Your task to perform on an android device: turn on the 24-hour format for clock Image 0: 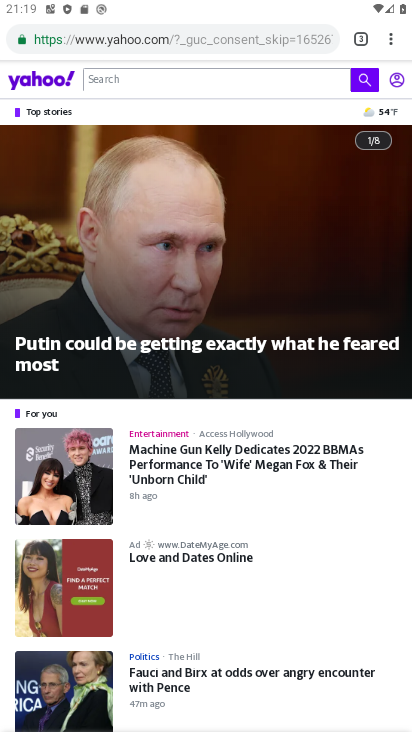
Step 0: drag from (389, 36) to (246, 437)
Your task to perform on an android device: turn on the 24-hour format for clock Image 1: 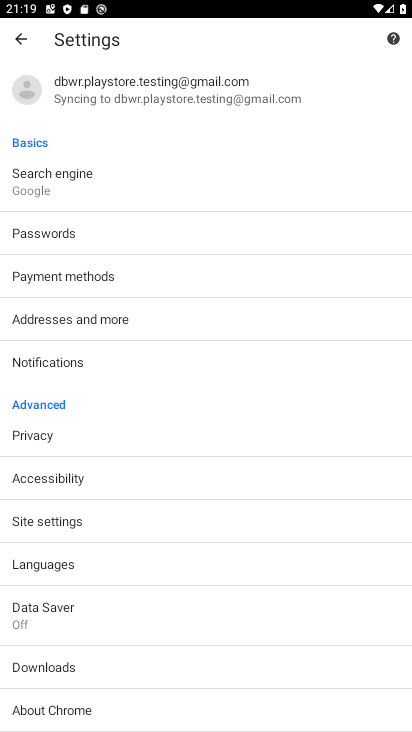
Step 1: press home button
Your task to perform on an android device: turn on the 24-hour format for clock Image 2: 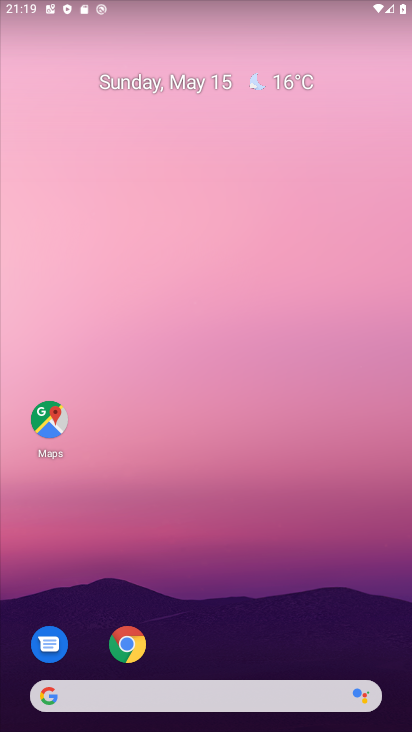
Step 2: drag from (191, 563) to (357, 17)
Your task to perform on an android device: turn on the 24-hour format for clock Image 3: 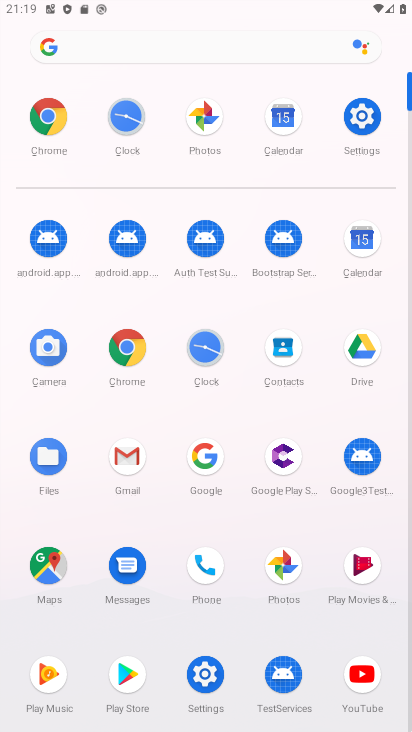
Step 3: click (211, 344)
Your task to perform on an android device: turn on the 24-hour format for clock Image 4: 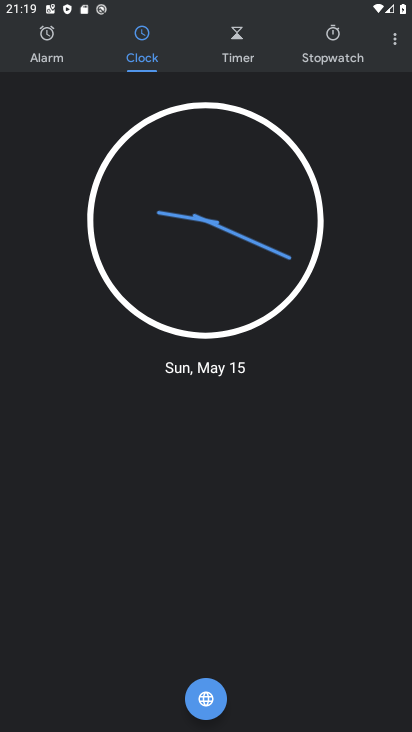
Step 4: click (392, 39)
Your task to perform on an android device: turn on the 24-hour format for clock Image 5: 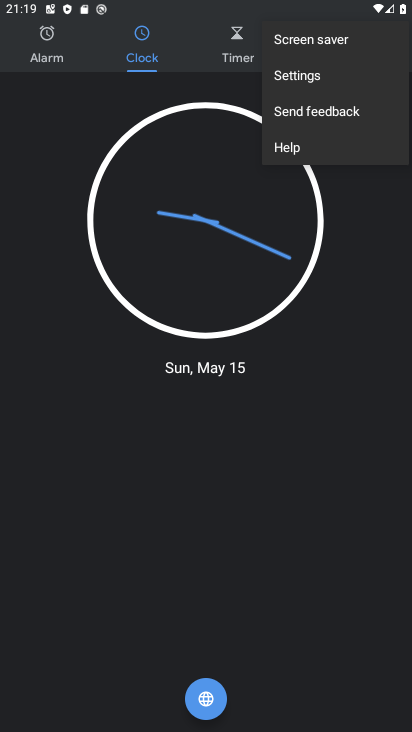
Step 5: click (296, 82)
Your task to perform on an android device: turn on the 24-hour format for clock Image 6: 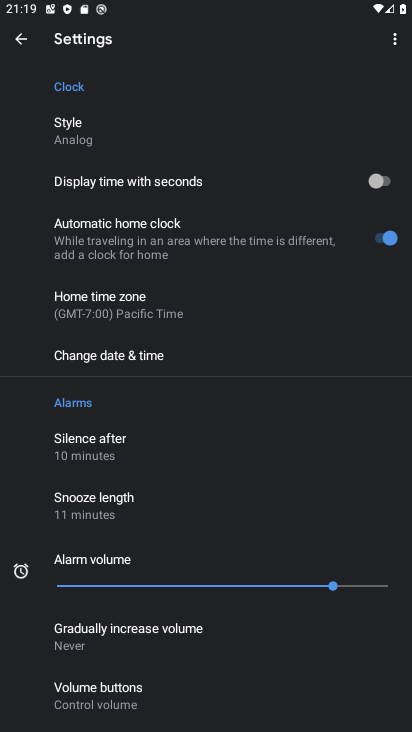
Step 6: click (100, 362)
Your task to perform on an android device: turn on the 24-hour format for clock Image 7: 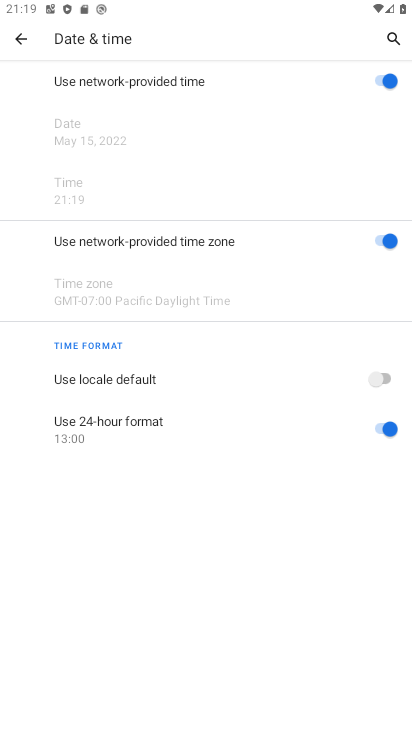
Step 7: task complete